Your task to perform on an android device: turn on location history Image 0: 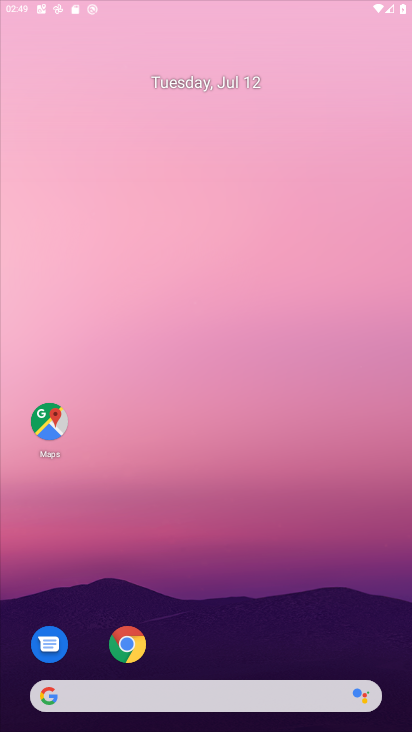
Step 0: click (161, 171)
Your task to perform on an android device: turn on location history Image 1: 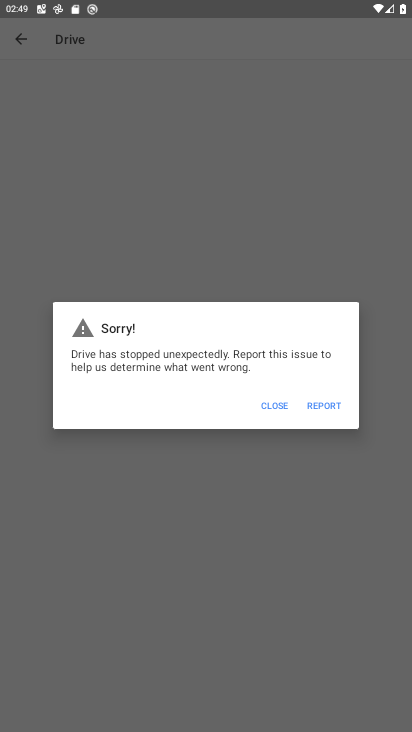
Step 1: press home button
Your task to perform on an android device: turn on location history Image 2: 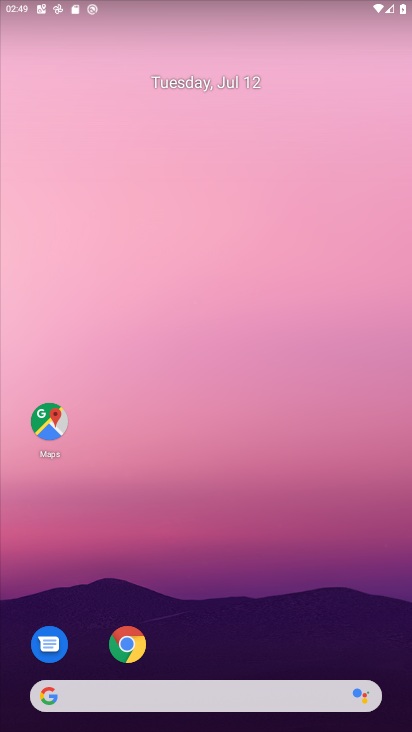
Step 2: drag from (198, 643) to (221, 30)
Your task to perform on an android device: turn on location history Image 3: 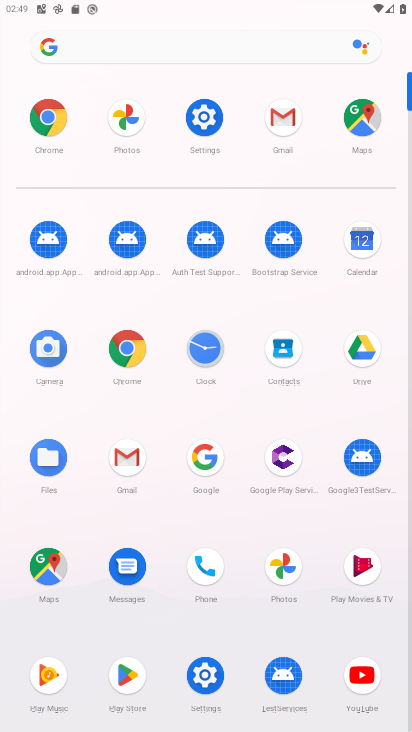
Step 3: click (201, 112)
Your task to perform on an android device: turn on location history Image 4: 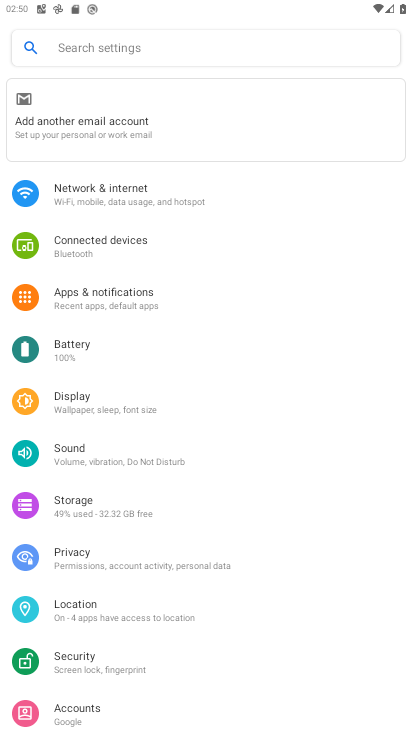
Step 4: click (109, 595)
Your task to perform on an android device: turn on location history Image 5: 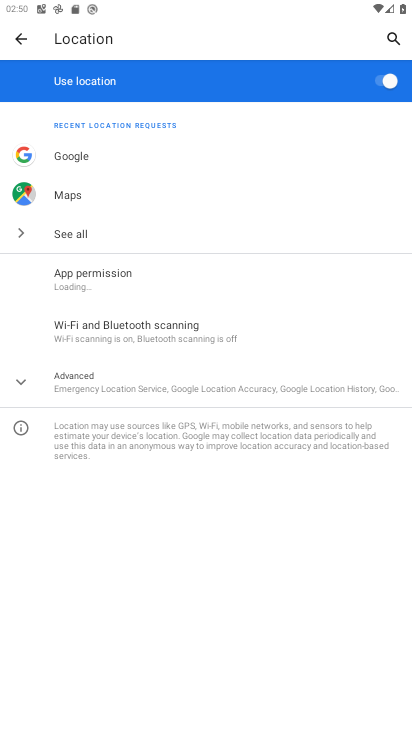
Step 5: click (115, 385)
Your task to perform on an android device: turn on location history Image 6: 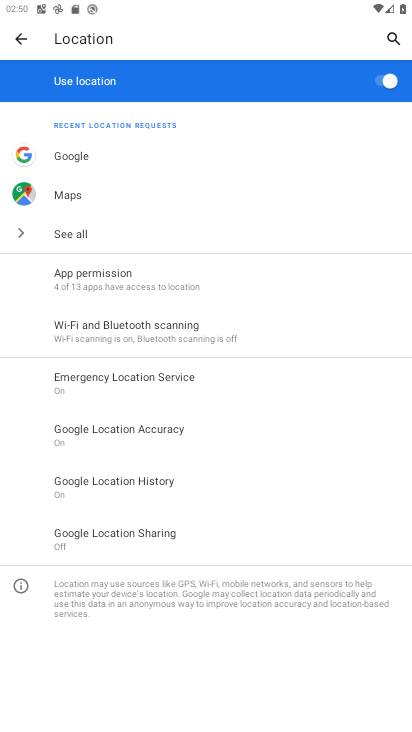
Step 6: click (144, 477)
Your task to perform on an android device: turn on location history Image 7: 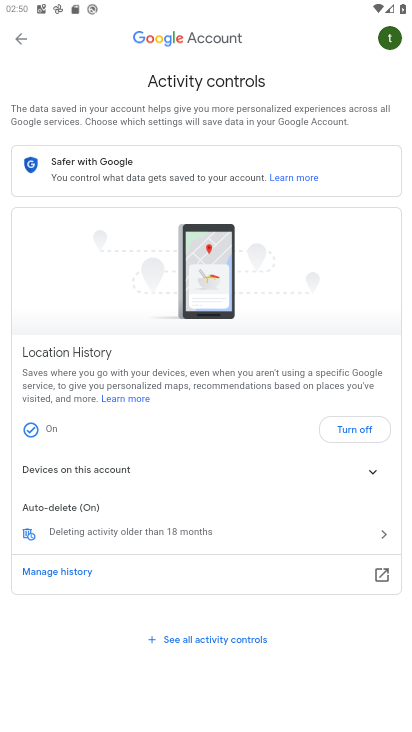
Step 7: task complete